Your task to perform on an android device: Show me popular videos on Youtube Image 0: 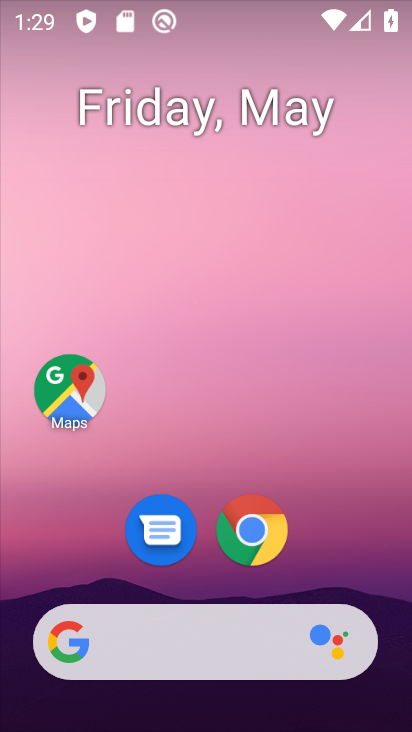
Step 0: drag from (291, 568) to (253, 154)
Your task to perform on an android device: Show me popular videos on Youtube Image 1: 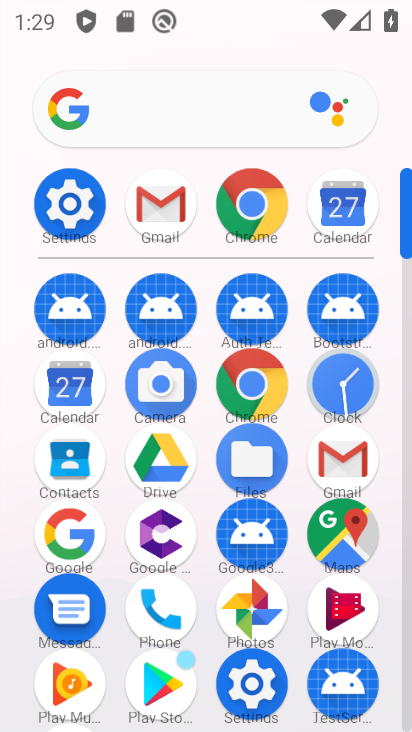
Step 1: drag from (202, 614) to (169, 188)
Your task to perform on an android device: Show me popular videos on Youtube Image 2: 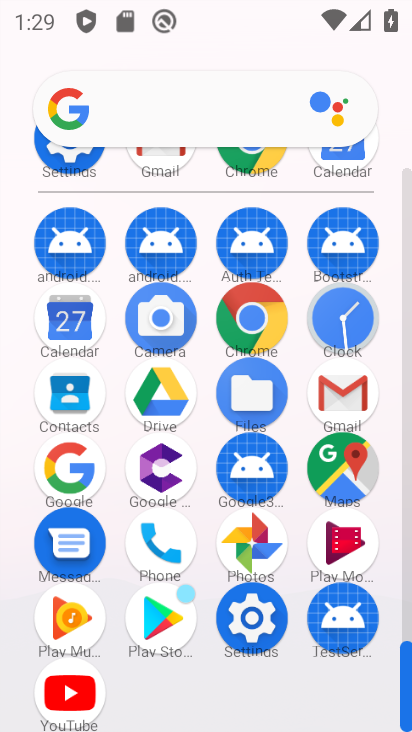
Step 2: click (67, 689)
Your task to perform on an android device: Show me popular videos on Youtube Image 3: 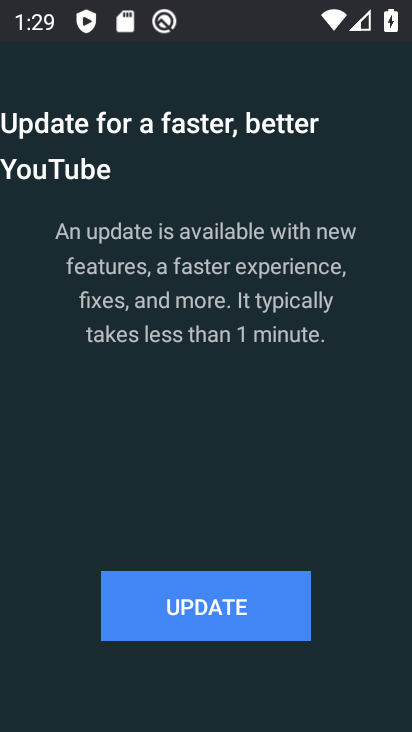
Step 3: click (217, 617)
Your task to perform on an android device: Show me popular videos on Youtube Image 4: 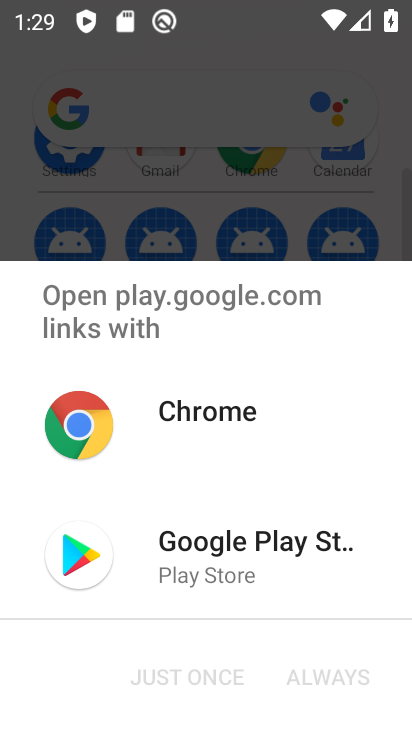
Step 4: click (195, 575)
Your task to perform on an android device: Show me popular videos on Youtube Image 5: 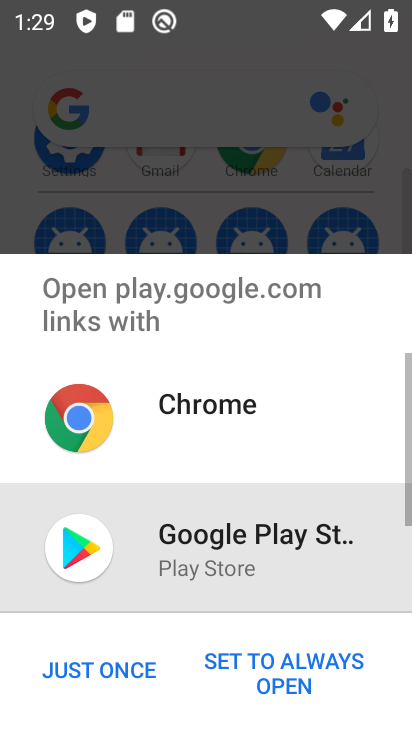
Step 5: click (53, 673)
Your task to perform on an android device: Show me popular videos on Youtube Image 6: 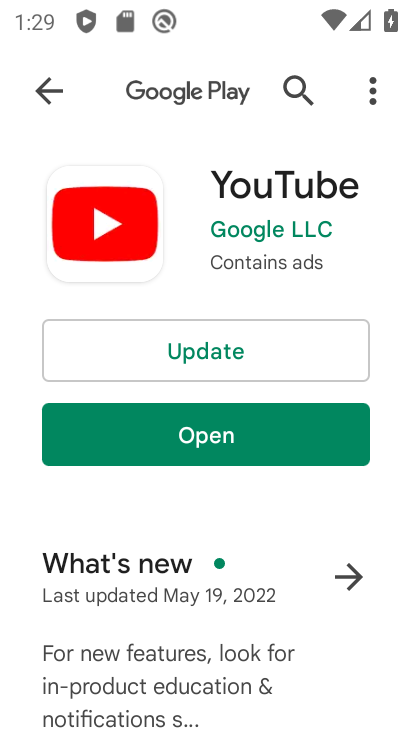
Step 6: click (222, 353)
Your task to perform on an android device: Show me popular videos on Youtube Image 7: 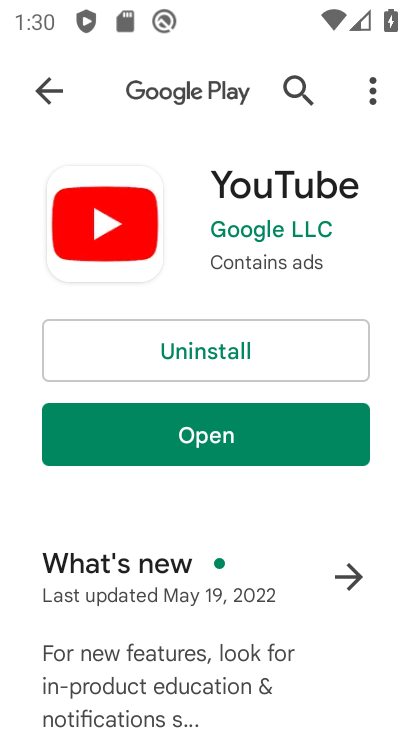
Step 7: click (176, 455)
Your task to perform on an android device: Show me popular videos on Youtube Image 8: 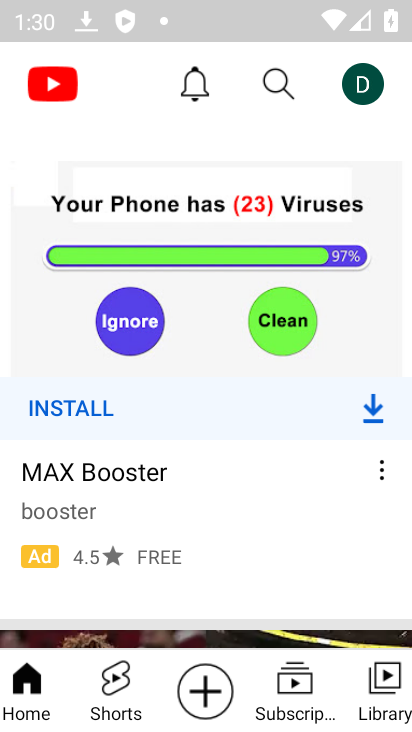
Step 8: drag from (111, 257) to (112, 633)
Your task to perform on an android device: Show me popular videos on Youtube Image 9: 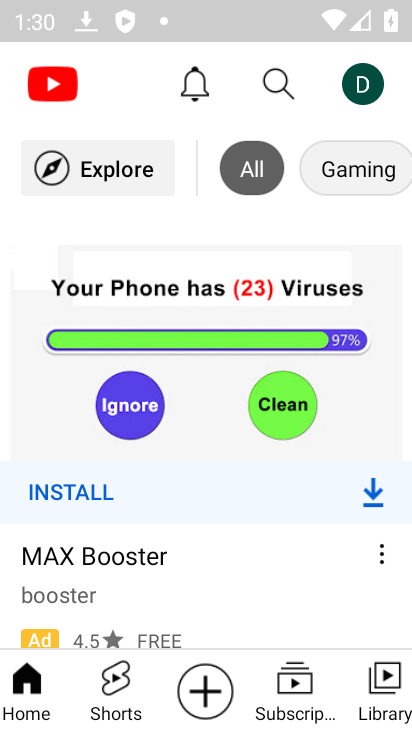
Step 9: click (96, 160)
Your task to perform on an android device: Show me popular videos on Youtube Image 10: 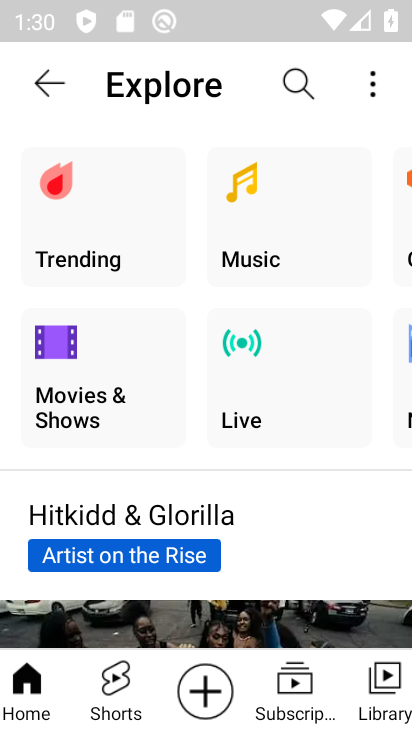
Step 10: click (103, 253)
Your task to perform on an android device: Show me popular videos on Youtube Image 11: 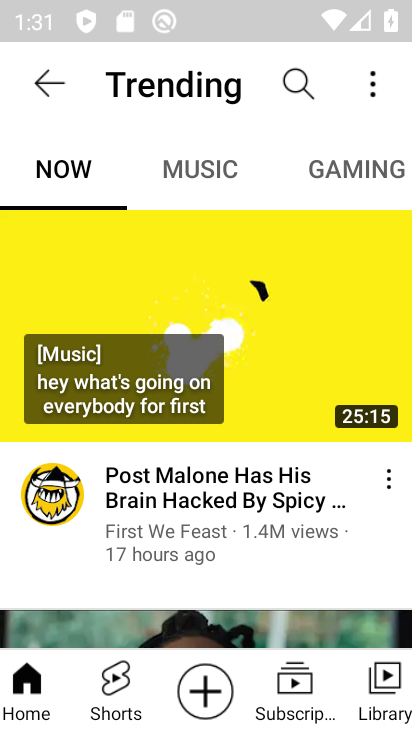
Step 11: task complete